Your task to perform on an android device: Go to Android settings Image 0: 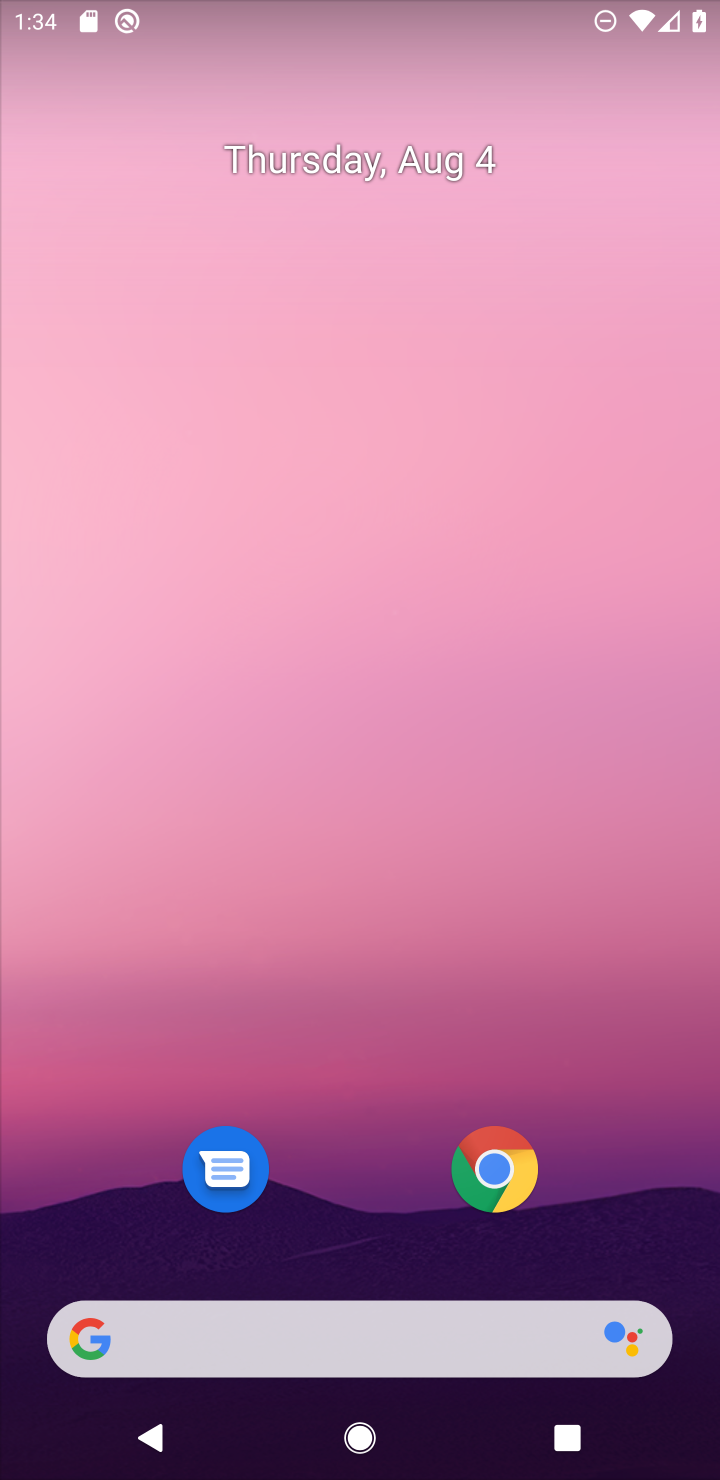
Step 0: drag from (393, 992) to (425, 51)
Your task to perform on an android device: Go to Android settings Image 1: 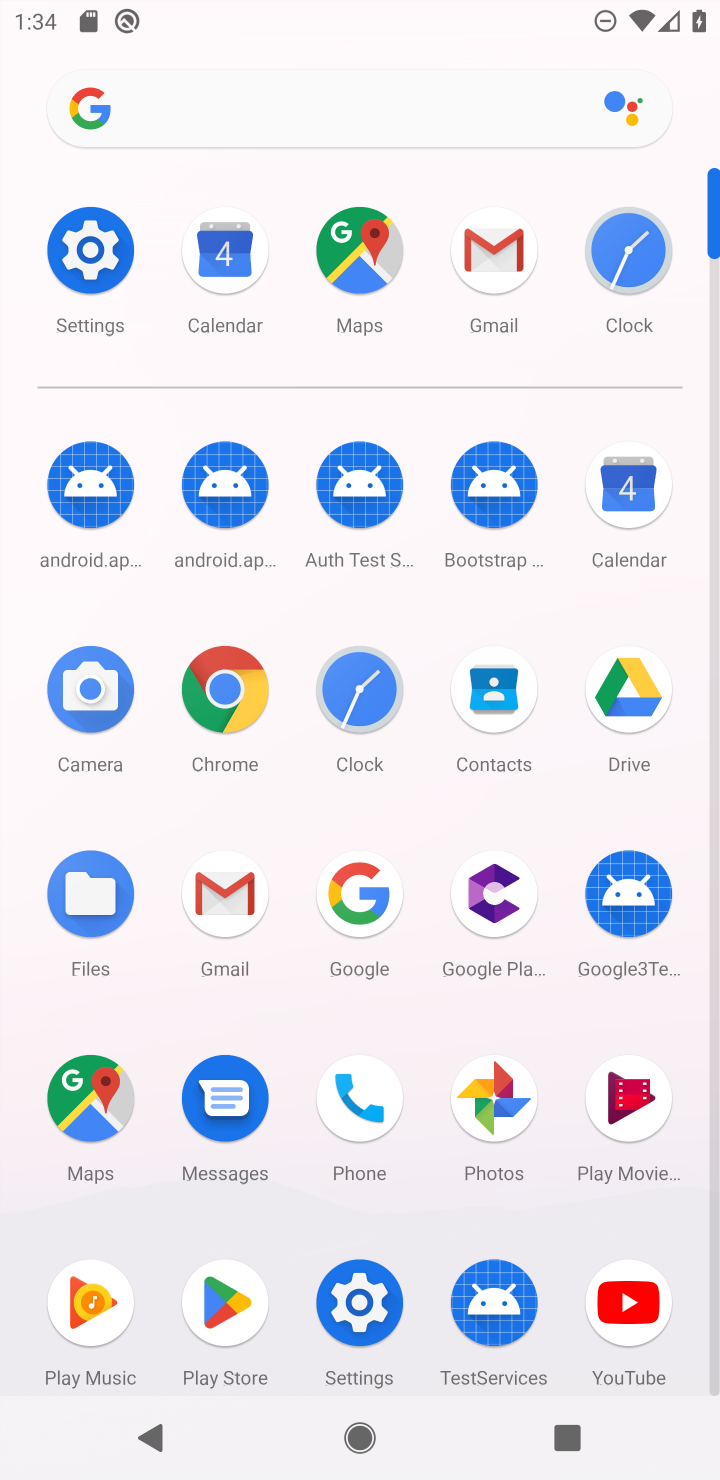
Step 1: click (77, 259)
Your task to perform on an android device: Go to Android settings Image 2: 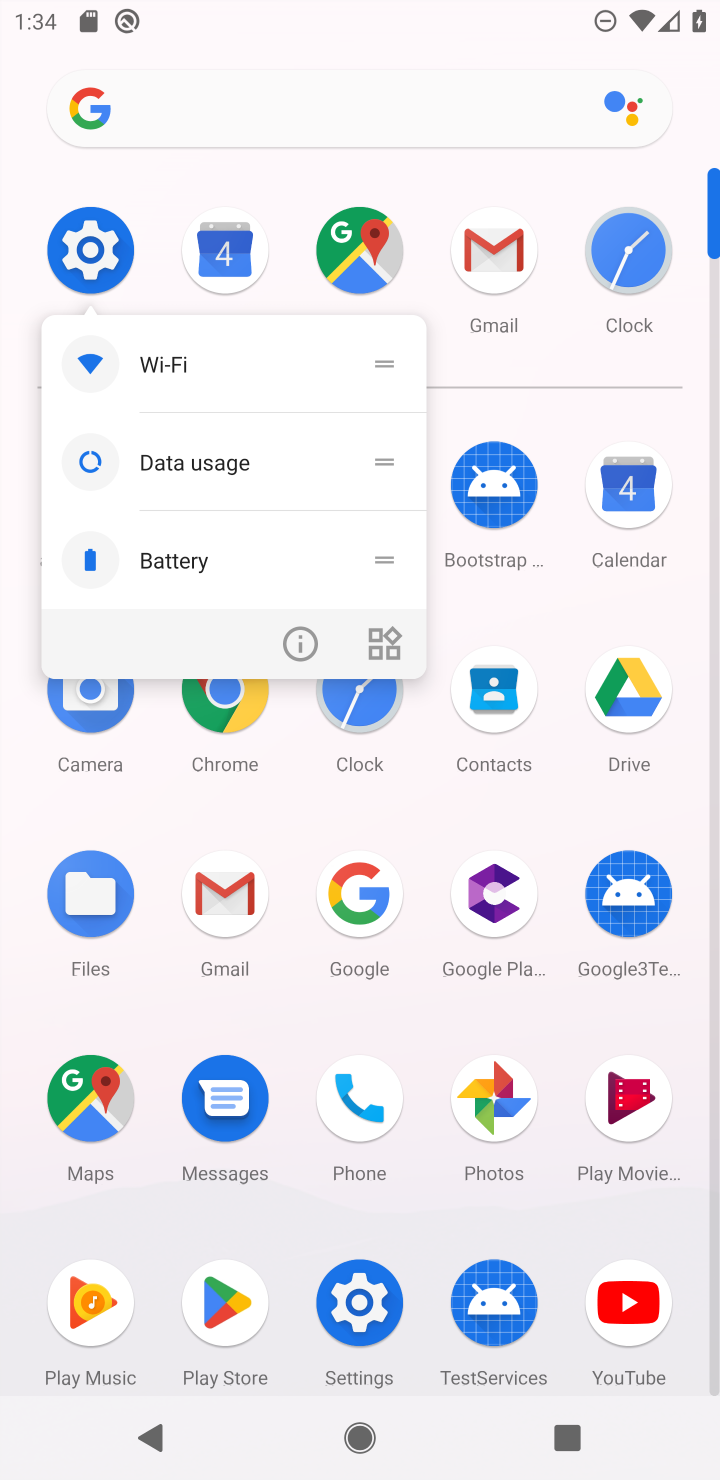
Step 2: click (77, 259)
Your task to perform on an android device: Go to Android settings Image 3: 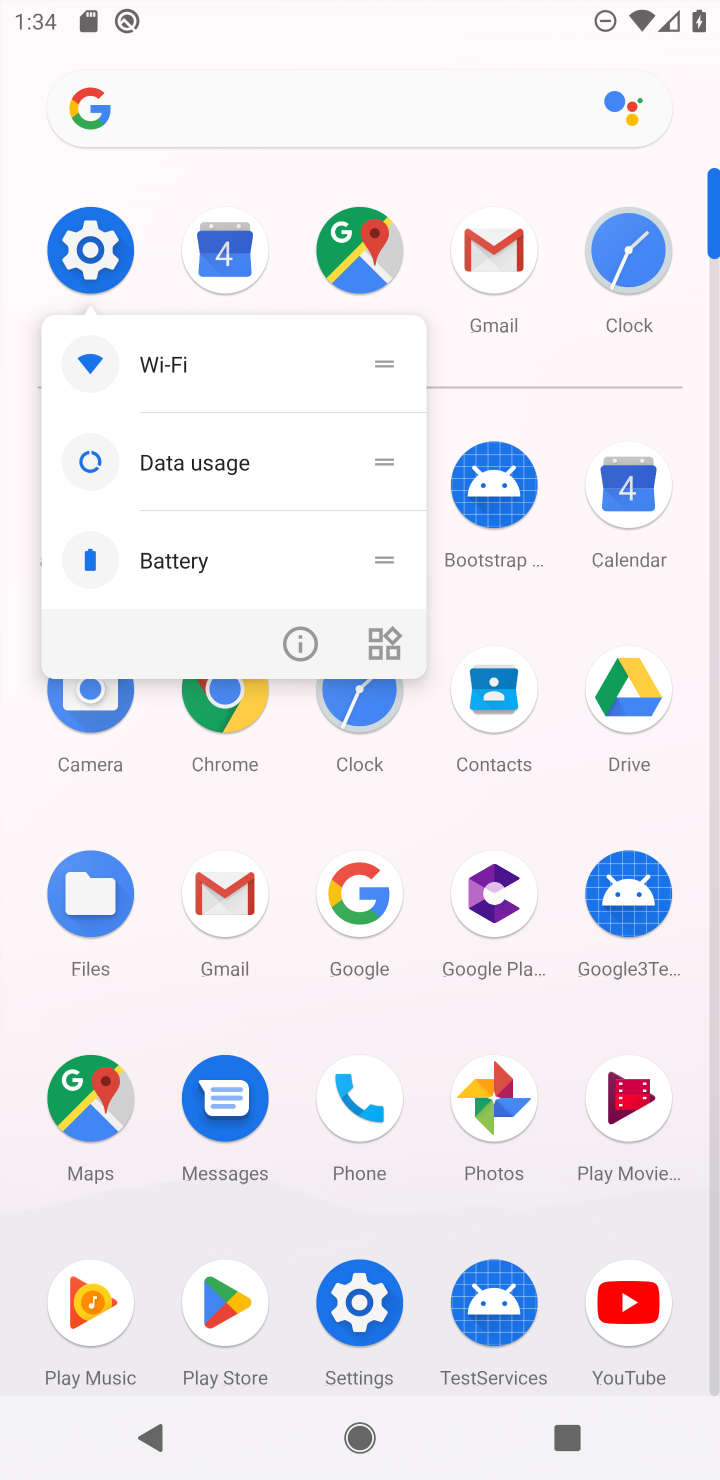
Step 3: click (90, 252)
Your task to perform on an android device: Go to Android settings Image 4: 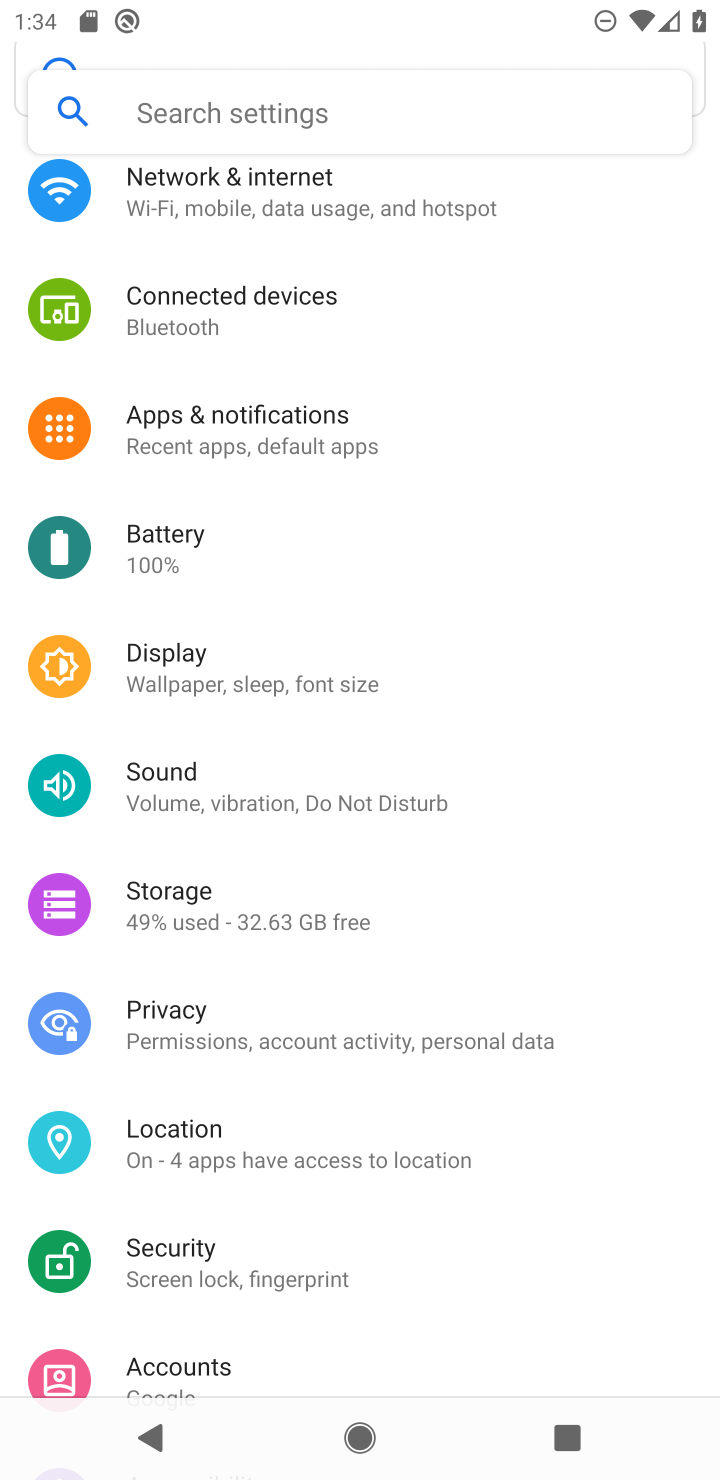
Step 4: task complete